Your task to perform on an android device: Open display settings Image 0: 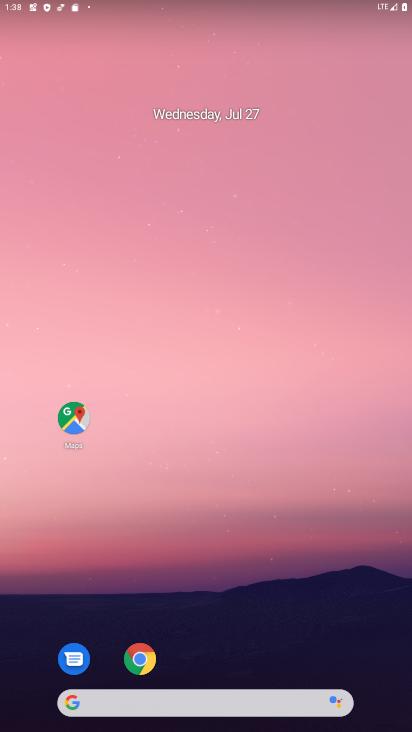
Step 0: drag from (238, 672) to (243, 113)
Your task to perform on an android device: Open display settings Image 1: 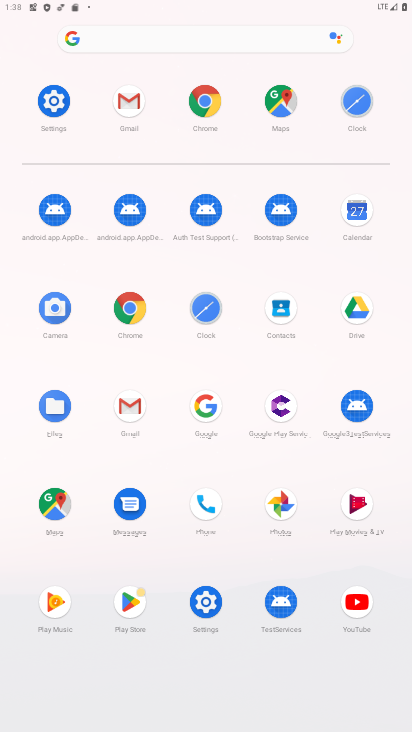
Step 1: click (204, 603)
Your task to perform on an android device: Open display settings Image 2: 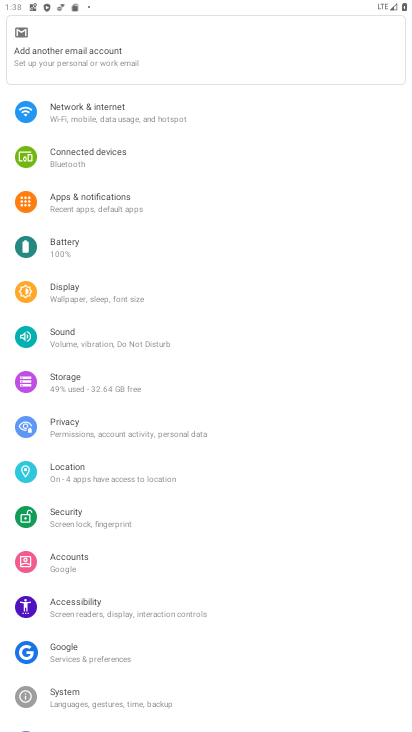
Step 2: click (71, 292)
Your task to perform on an android device: Open display settings Image 3: 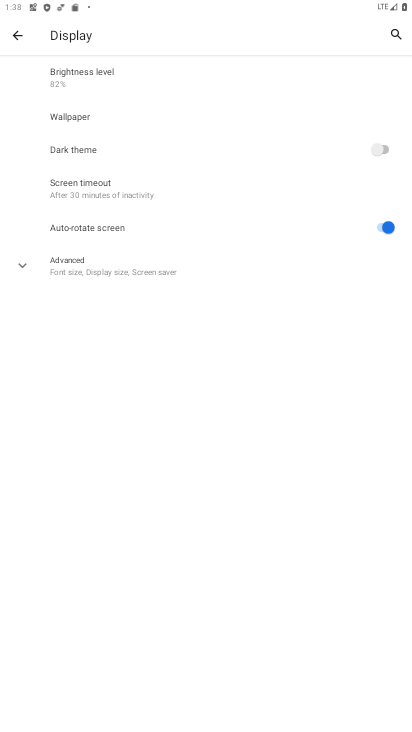
Step 3: task complete